Your task to perform on an android device: check battery use Image 0: 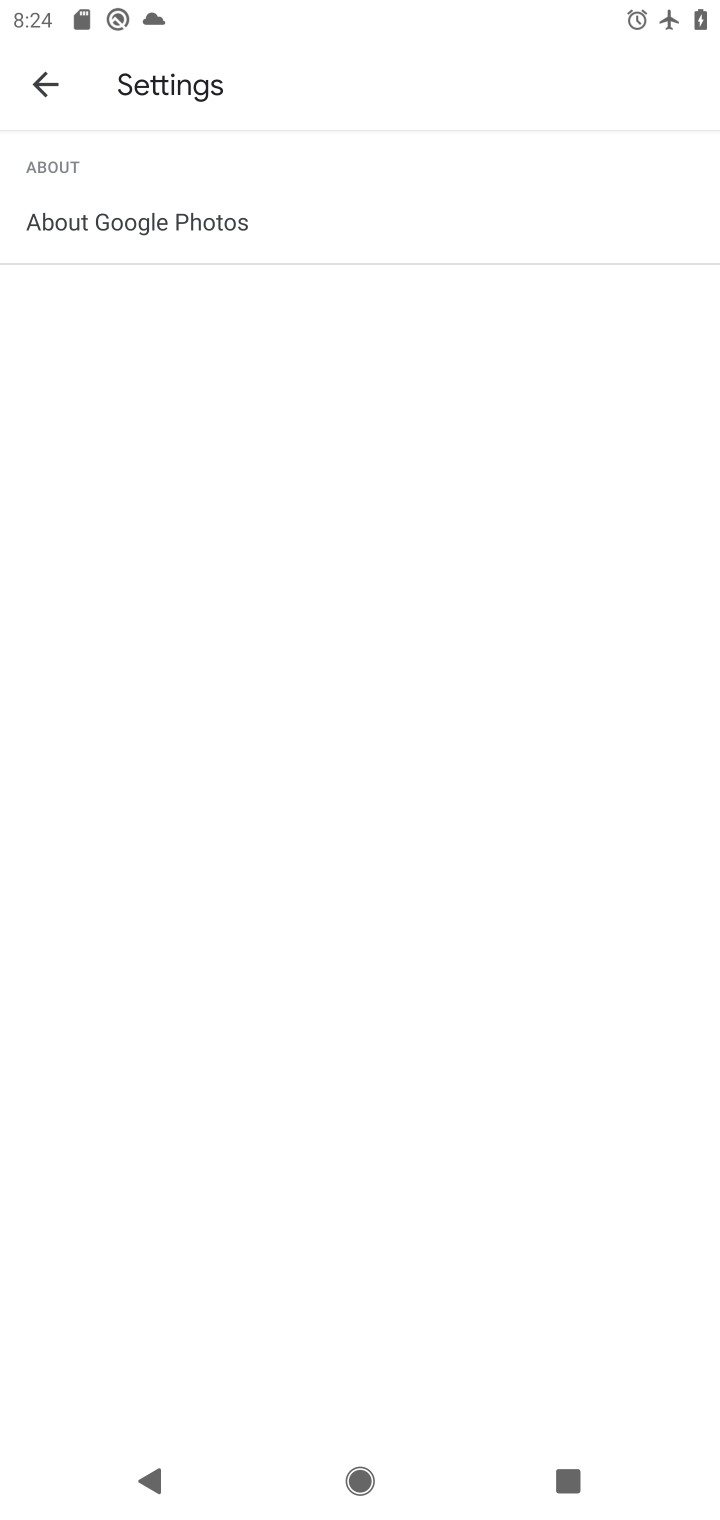
Step 0: press home button
Your task to perform on an android device: check battery use Image 1: 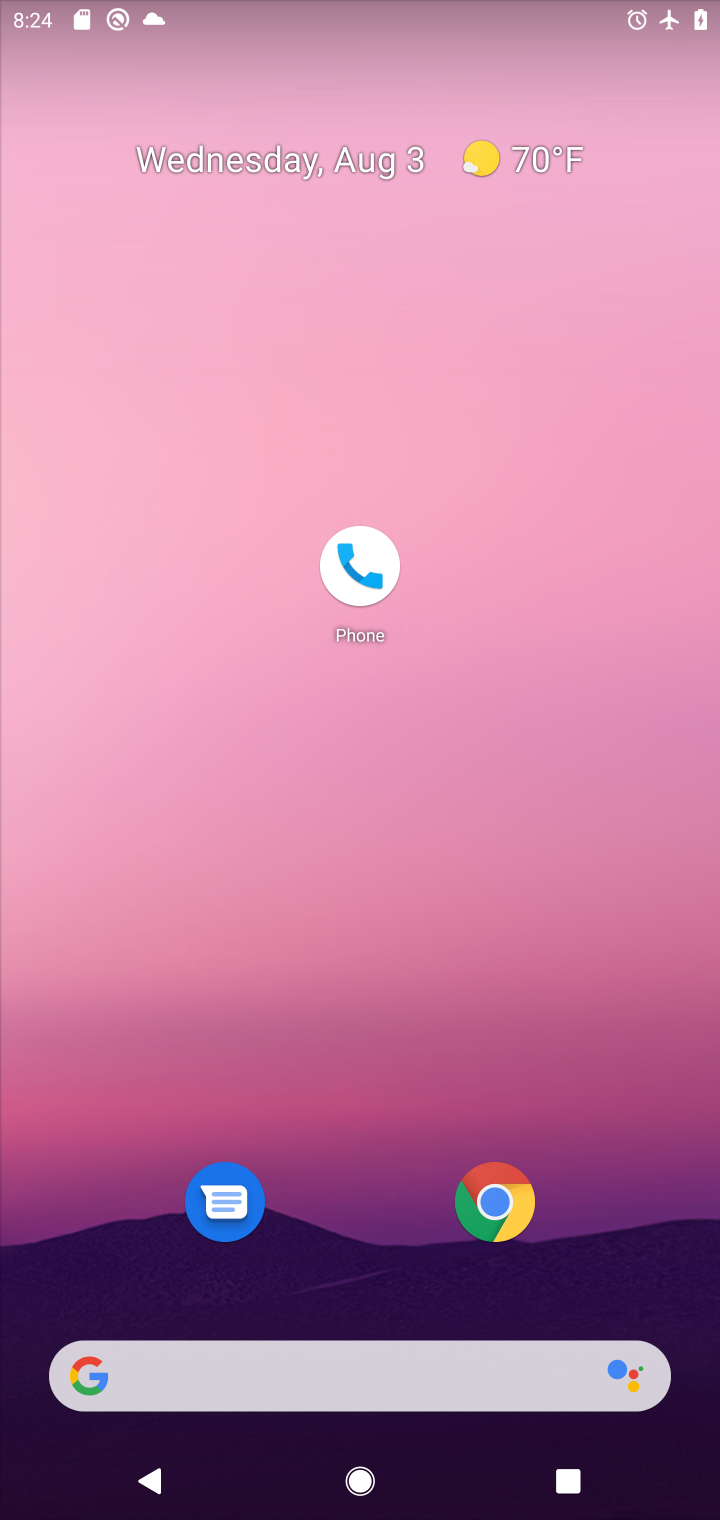
Step 1: drag from (322, 1384) to (607, 41)
Your task to perform on an android device: check battery use Image 2: 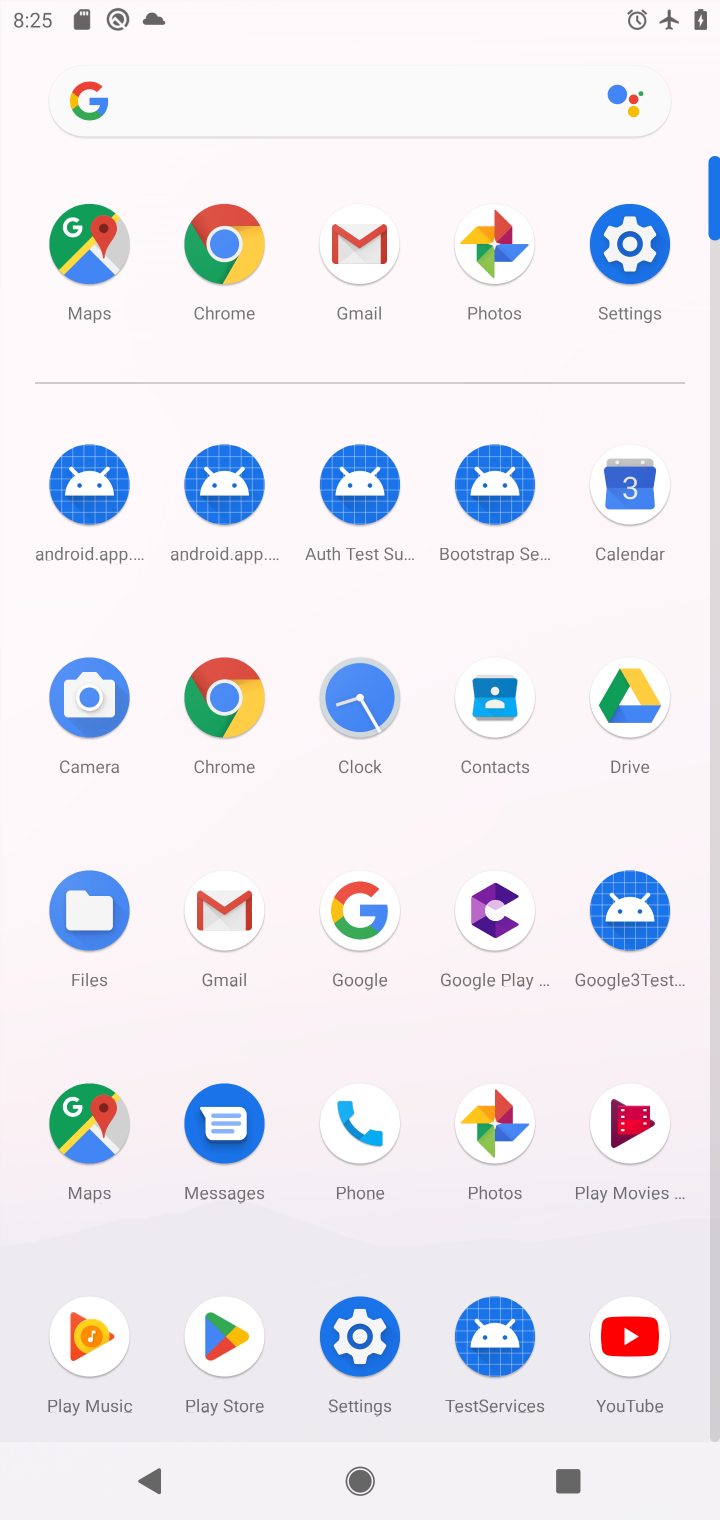
Step 2: click (628, 243)
Your task to perform on an android device: check battery use Image 3: 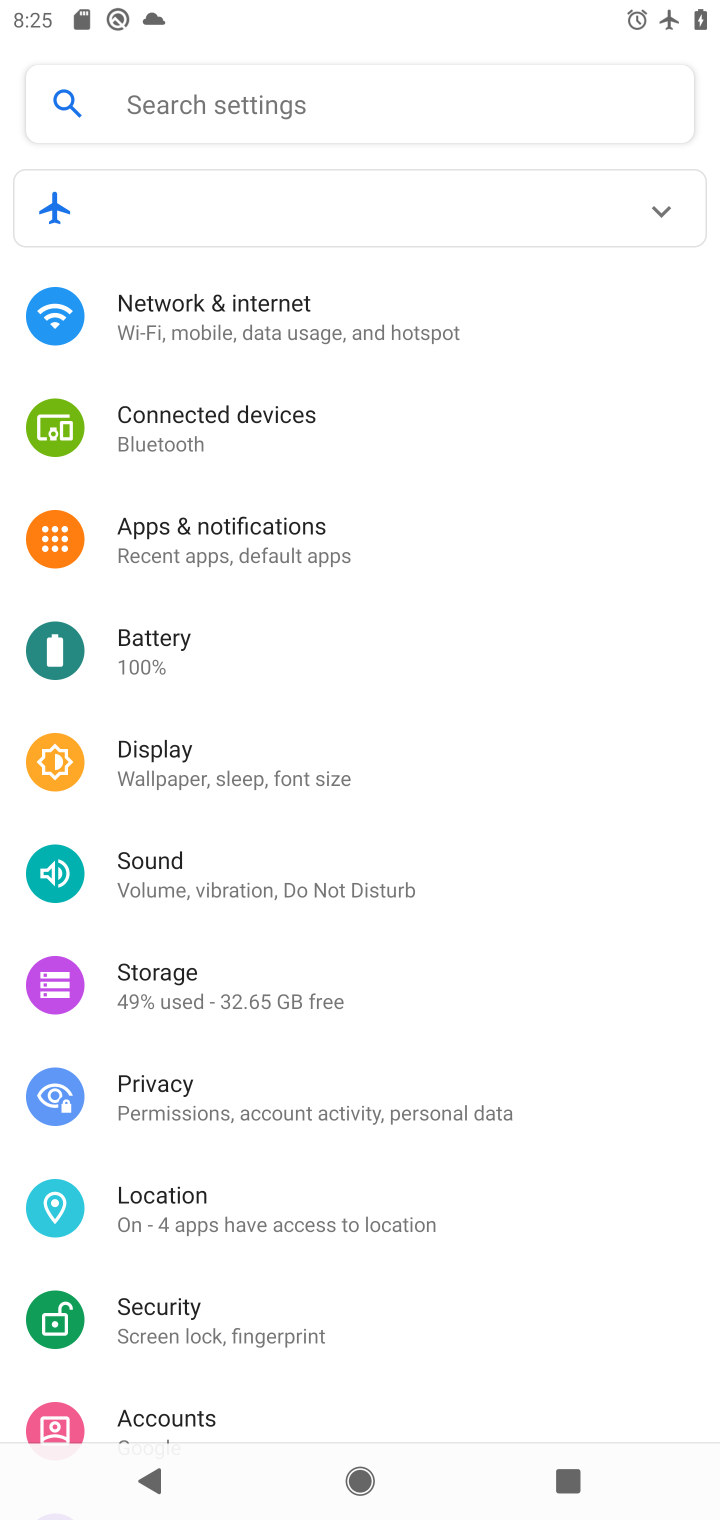
Step 3: click (181, 652)
Your task to perform on an android device: check battery use Image 4: 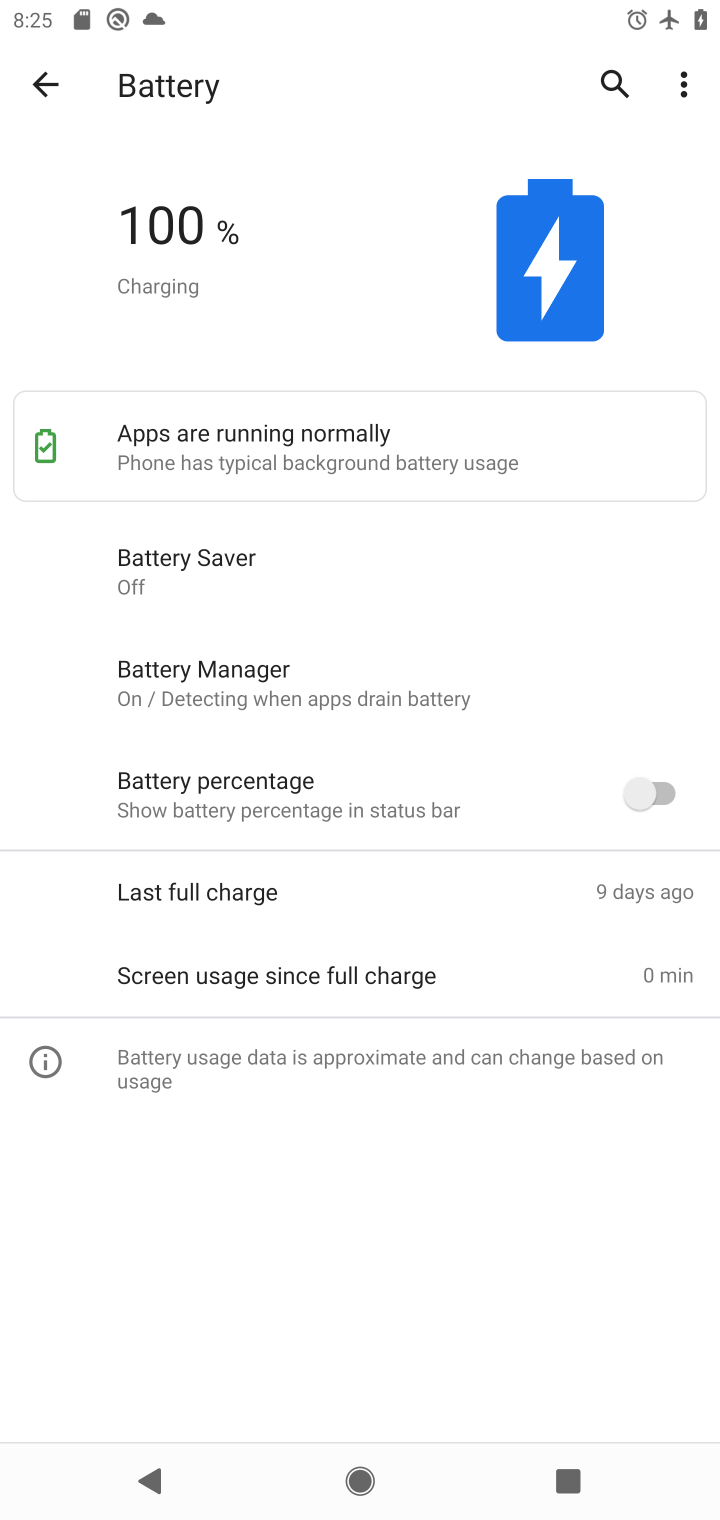
Step 4: click (681, 81)
Your task to perform on an android device: check battery use Image 5: 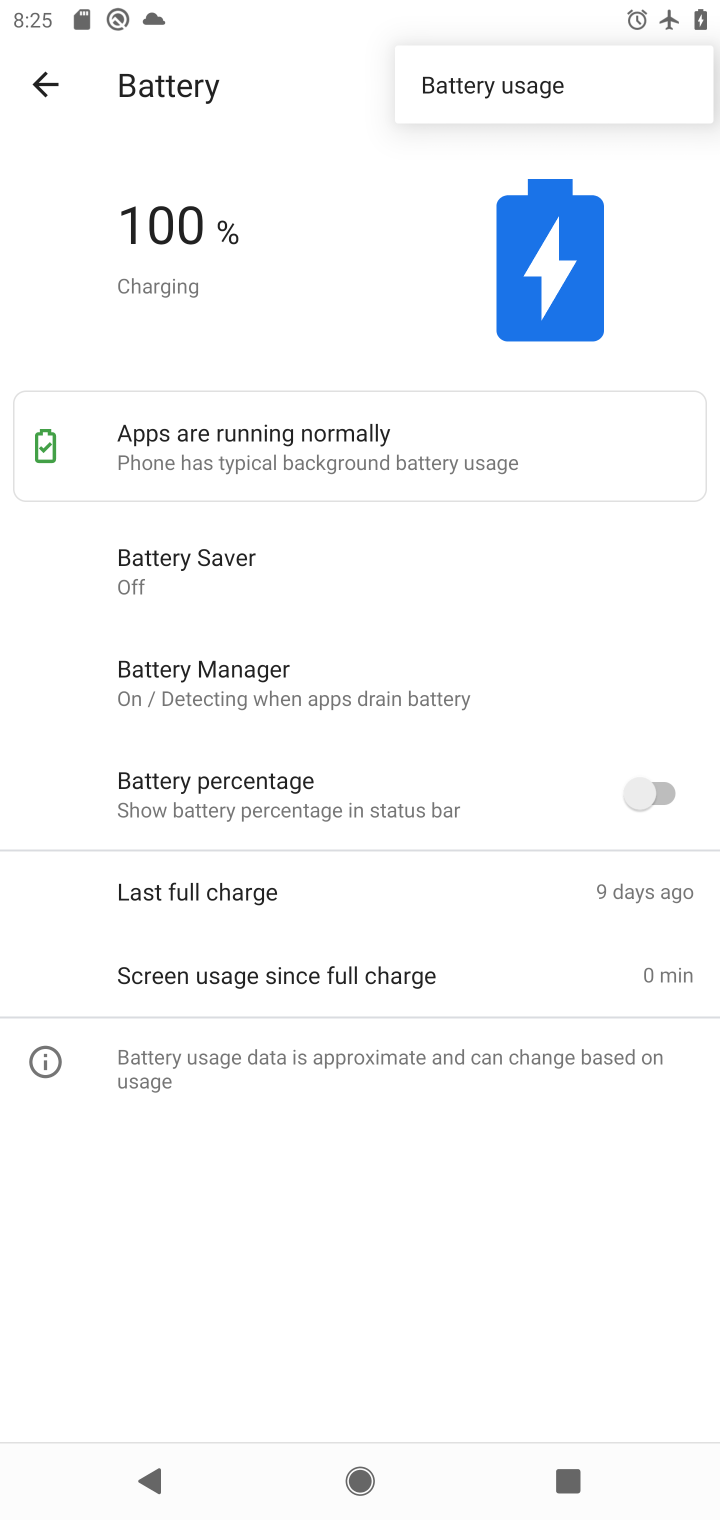
Step 5: click (541, 94)
Your task to perform on an android device: check battery use Image 6: 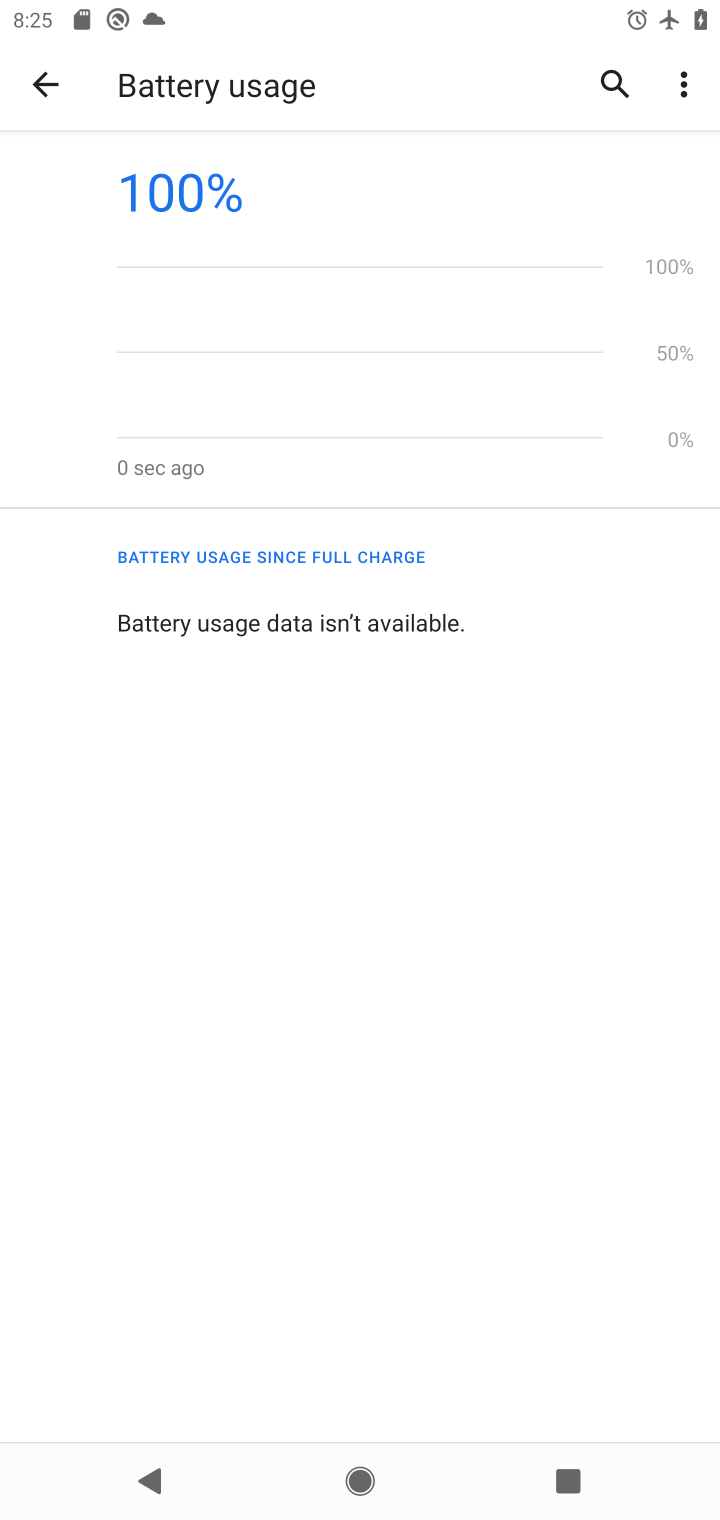
Step 6: task complete